Your task to perform on an android device: Open Google Maps Image 0: 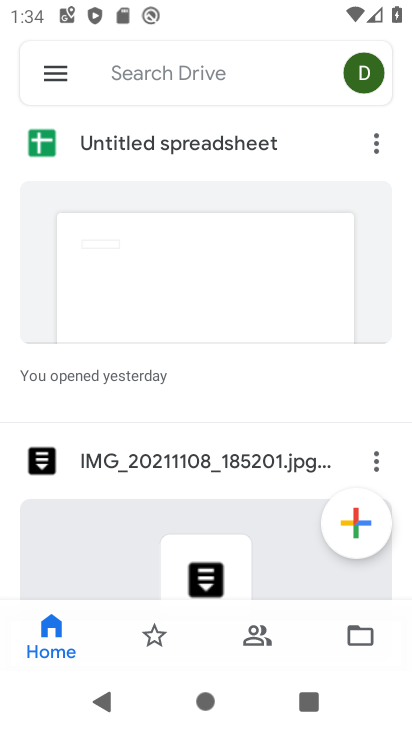
Step 0: press home button
Your task to perform on an android device: Open Google Maps Image 1: 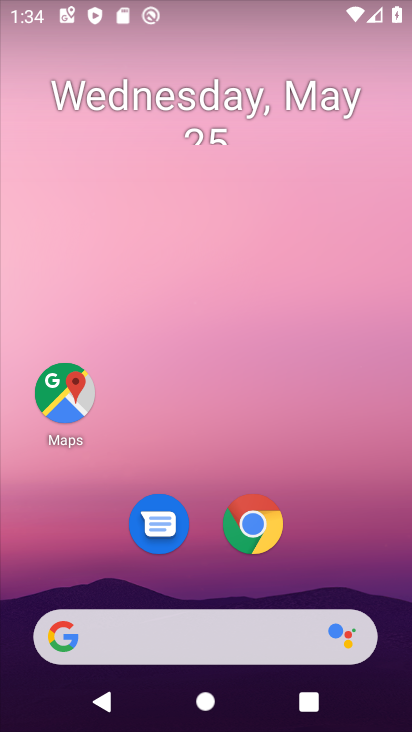
Step 1: click (63, 395)
Your task to perform on an android device: Open Google Maps Image 2: 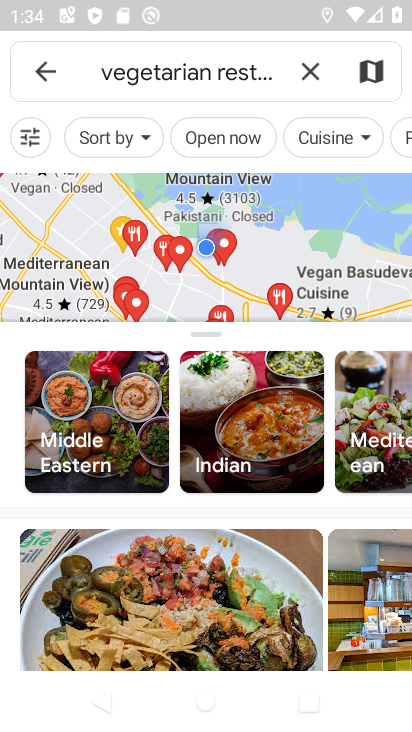
Step 2: click (310, 60)
Your task to perform on an android device: Open Google Maps Image 3: 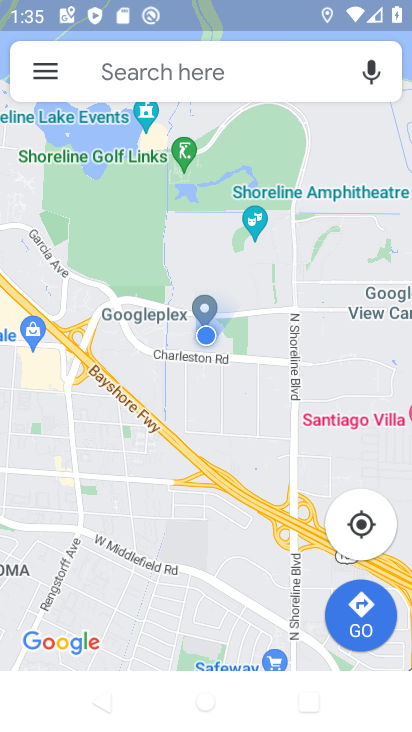
Step 3: task complete